Your task to perform on an android device: Search for "rayovac triple a" on amazon, select the first entry, and add it to the cart. Image 0: 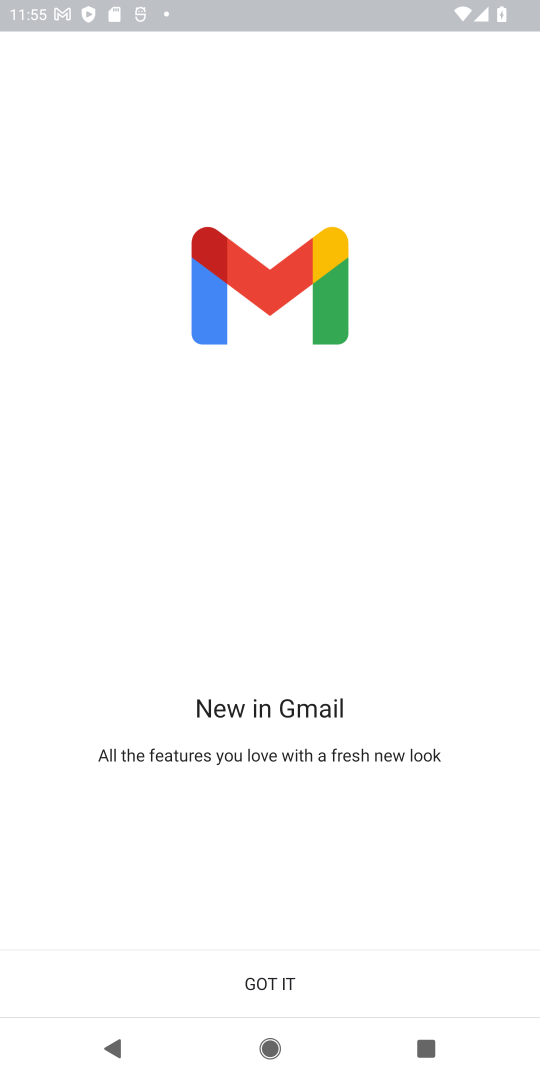
Step 0: press home button
Your task to perform on an android device: Search for "rayovac triple a" on amazon, select the first entry, and add it to the cart. Image 1: 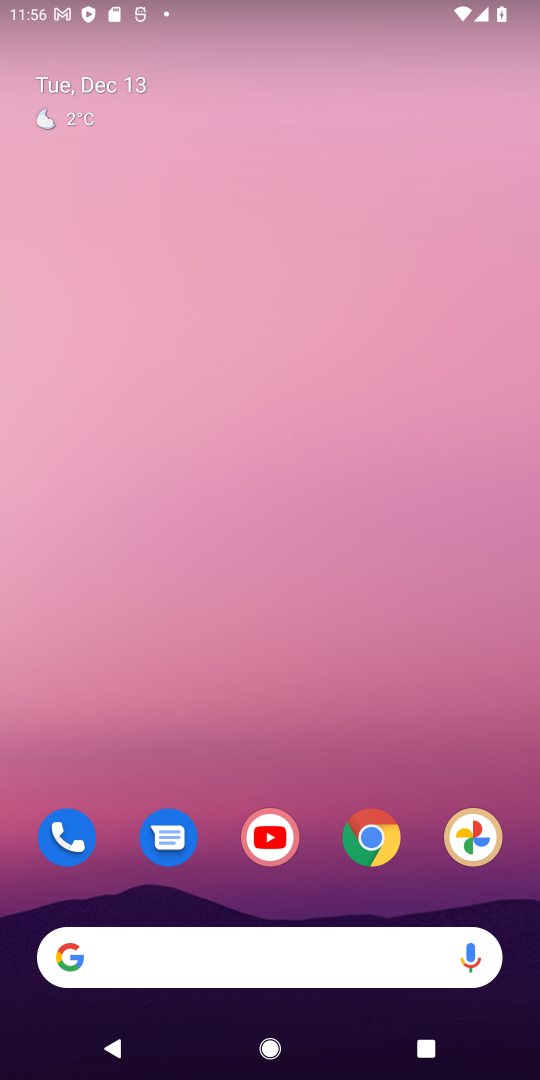
Step 1: click (388, 832)
Your task to perform on an android device: Search for "rayovac triple a" on amazon, select the first entry, and add it to the cart. Image 2: 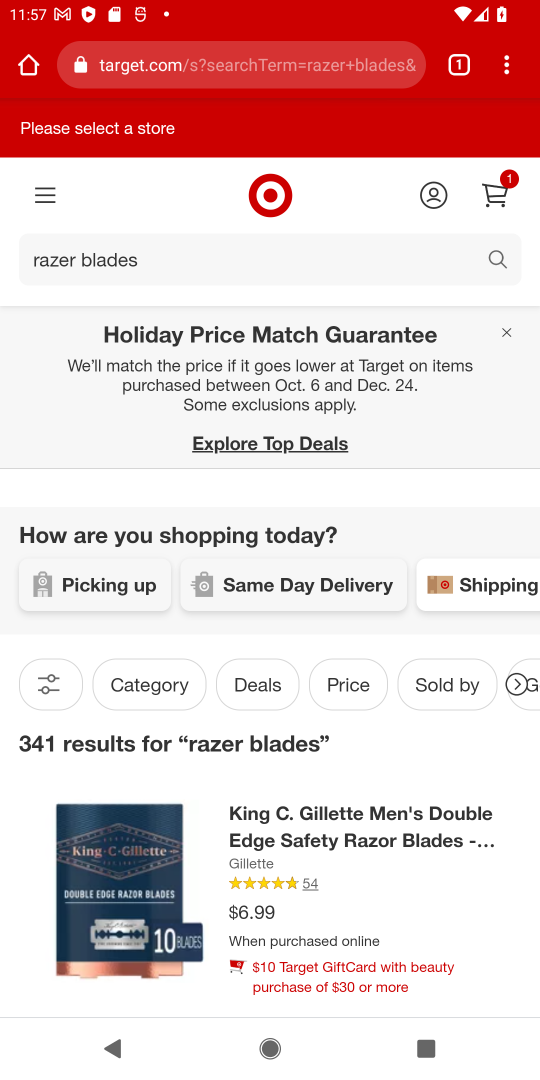
Step 2: click (343, 81)
Your task to perform on an android device: Search for "rayovac triple a" on amazon, select the first entry, and add it to the cart. Image 3: 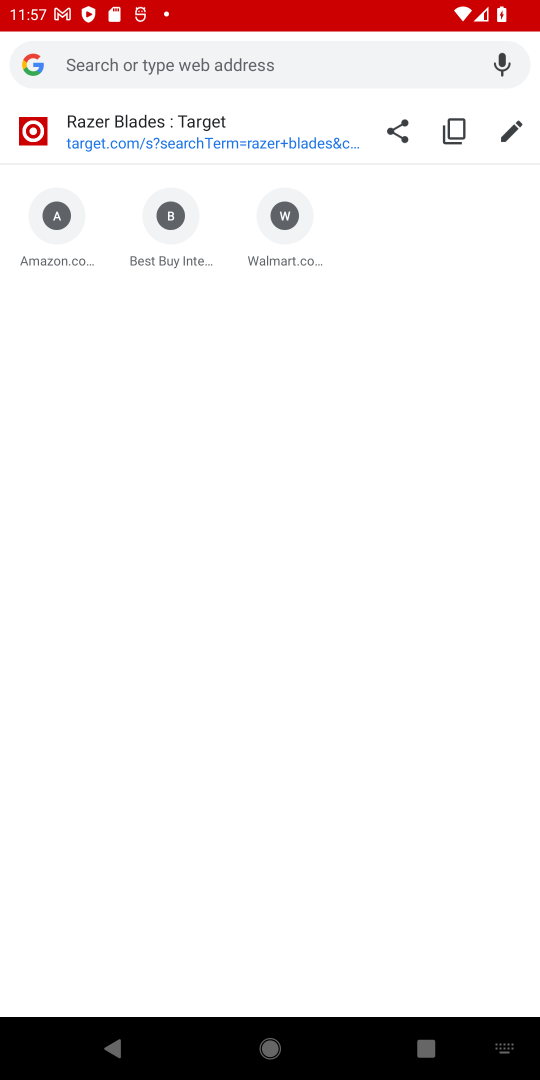
Step 3: type "amazon"
Your task to perform on an android device: Search for "rayovac triple a" on amazon, select the first entry, and add it to the cart. Image 4: 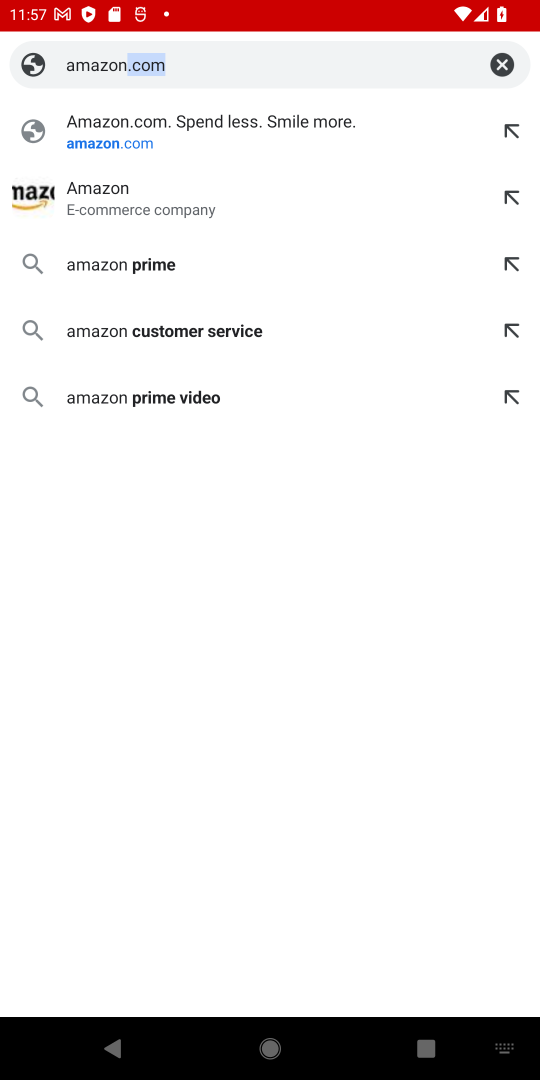
Step 4: click (143, 146)
Your task to perform on an android device: Search for "rayovac triple a" on amazon, select the first entry, and add it to the cart. Image 5: 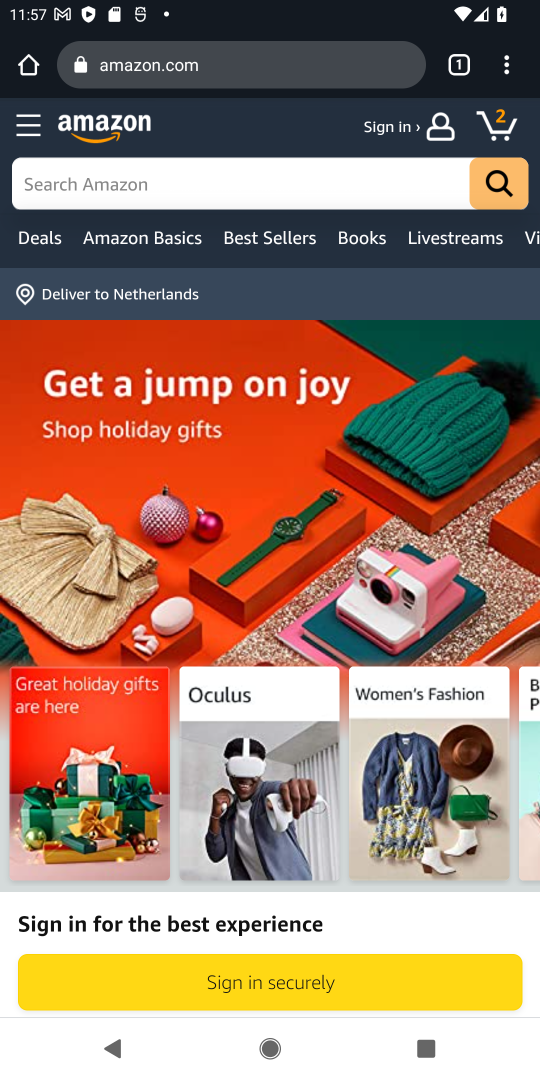
Step 5: click (183, 183)
Your task to perform on an android device: Search for "rayovac triple a" on amazon, select the first entry, and add it to the cart. Image 6: 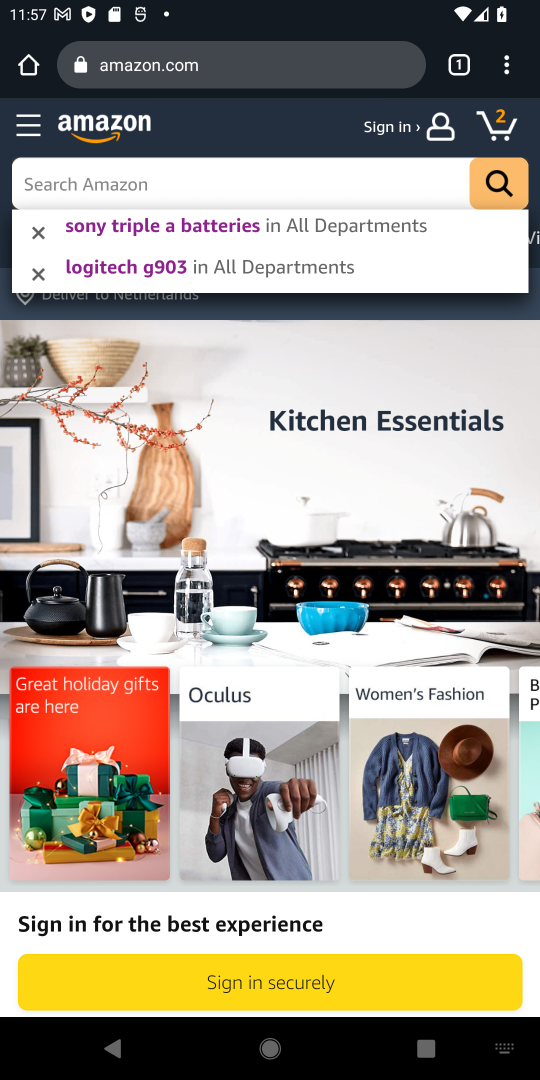
Step 6: type "rayovac"
Your task to perform on an android device: Search for "rayovac triple a" on amazon, select the first entry, and add it to the cart. Image 7: 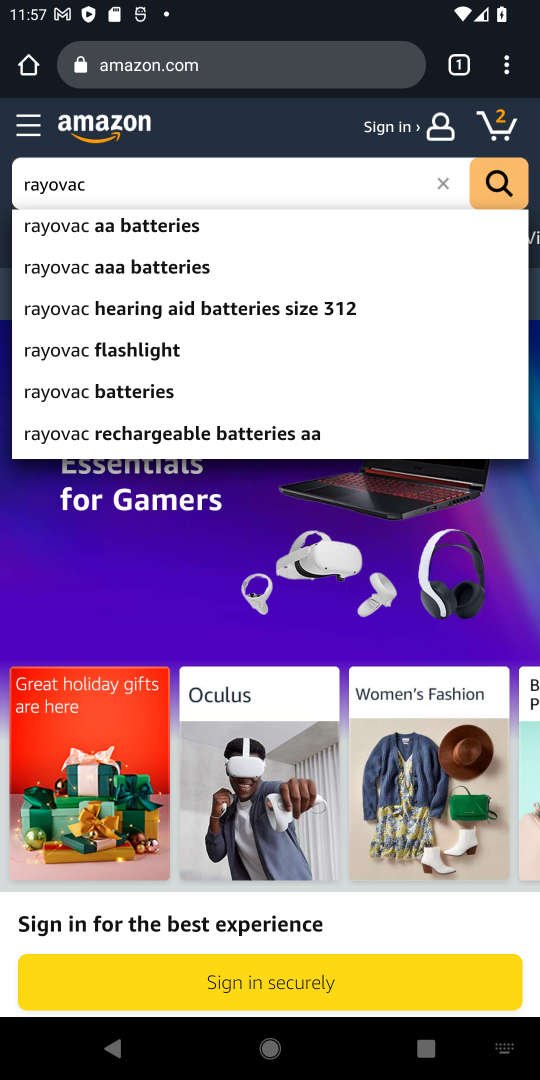
Step 7: click (146, 227)
Your task to perform on an android device: Search for "rayovac triple a" on amazon, select the first entry, and add it to the cart. Image 8: 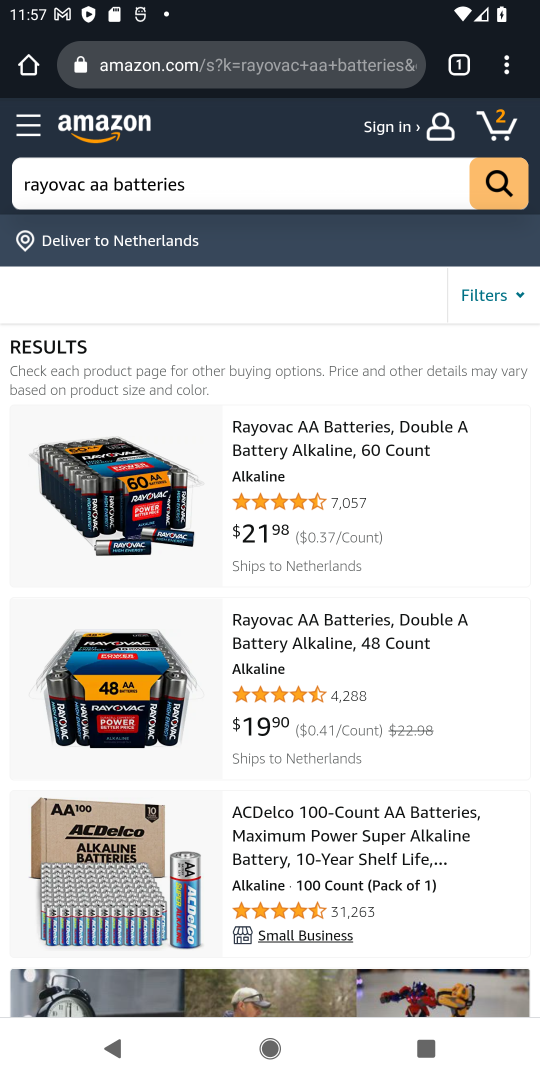
Step 8: click (348, 833)
Your task to perform on an android device: Search for "rayovac triple a" on amazon, select the first entry, and add it to the cart. Image 9: 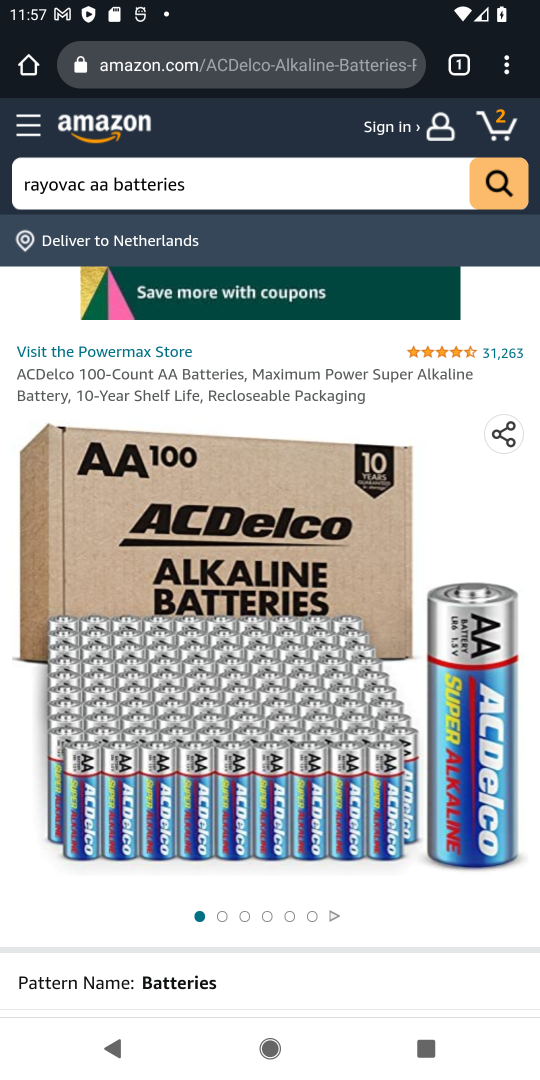
Step 9: task complete